Your task to perform on an android device: Open Google Image 0: 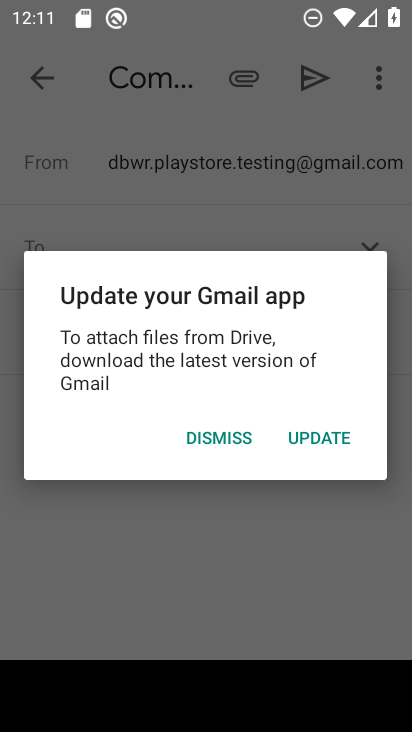
Step 0: press home button
Your task to perform on an android device: Open Google Image 1: 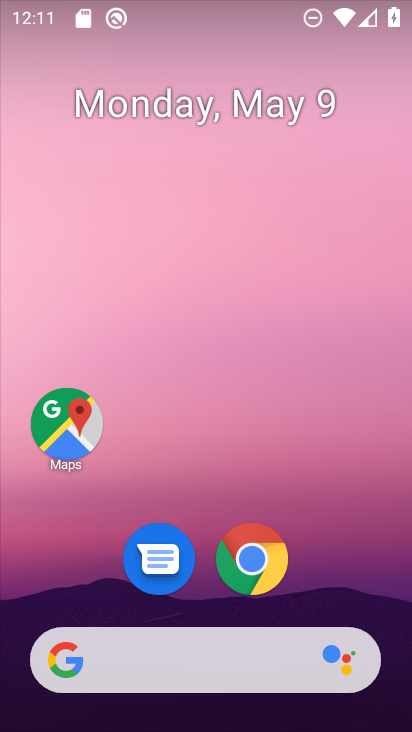
Step 1: drag from (364, 568) to (324, 64)
Your task to perform on an android device: Open Google Image 2: 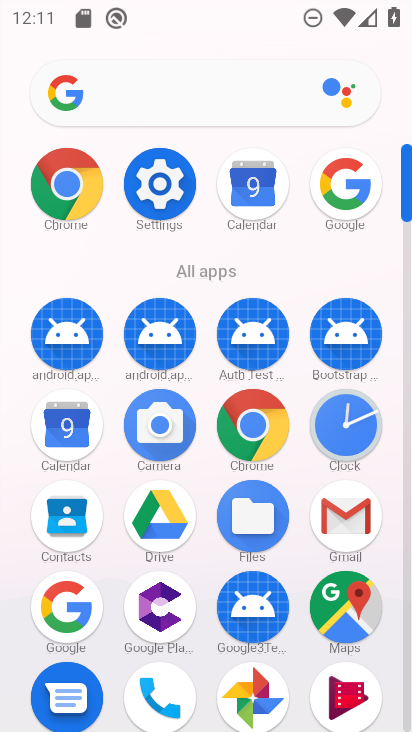
Step 2: click (88, 604)
Your task to perform on an android device: Open Google Image 3: 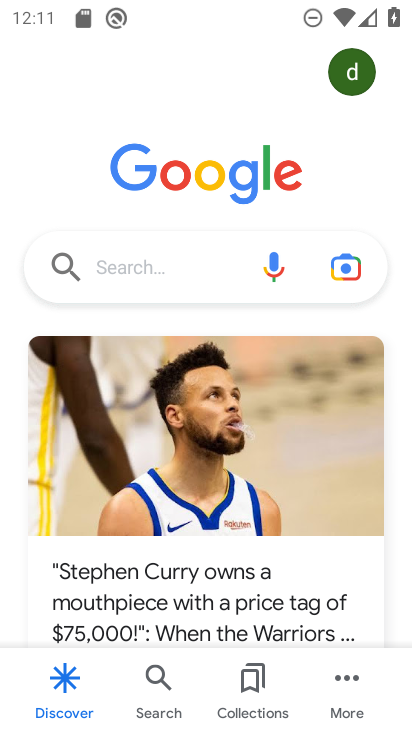
Step 3: task complete